Your task to perform on an android device: find photos in the google photos app Image 0: 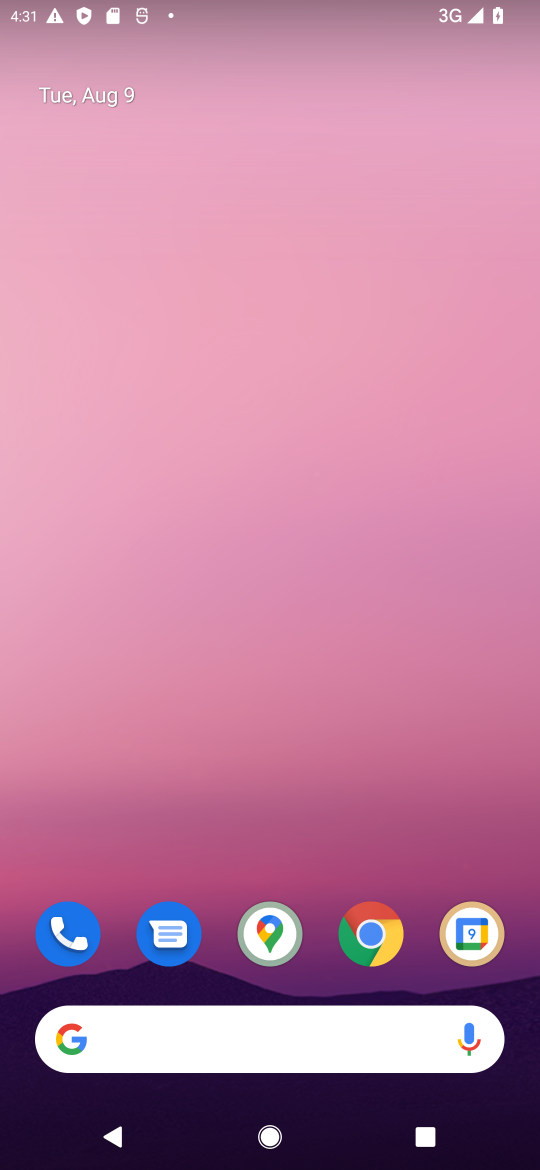
Step 0: drag from (308, 994) to (337, 339)
Your task to perform on an android device: find photos in the google photos app Image 1: 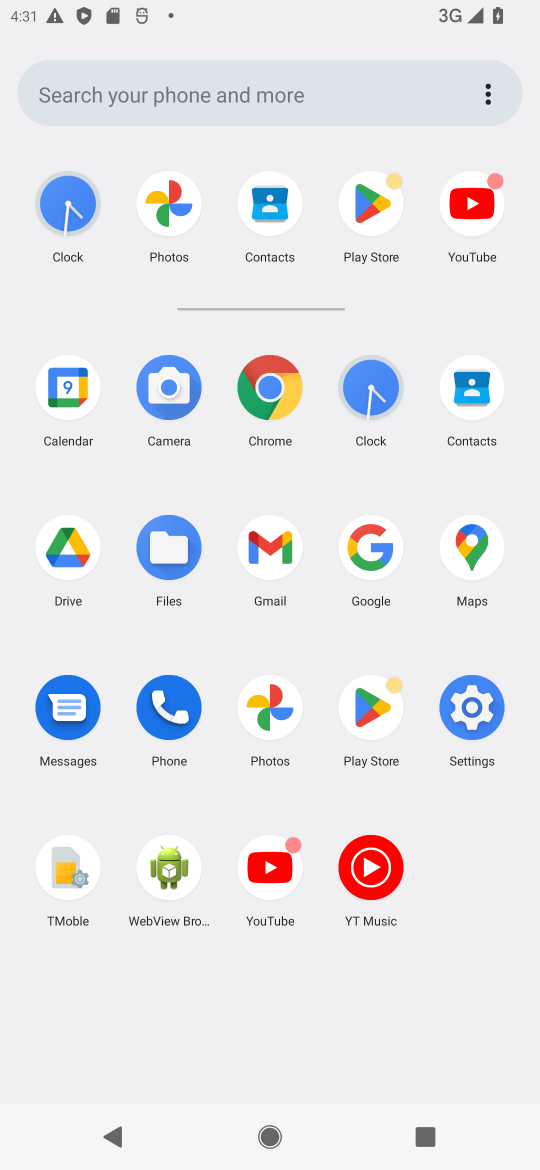
Step 1: click (154, 244)
Your task to perform on an android device: find photos in the google photos app Image 2: 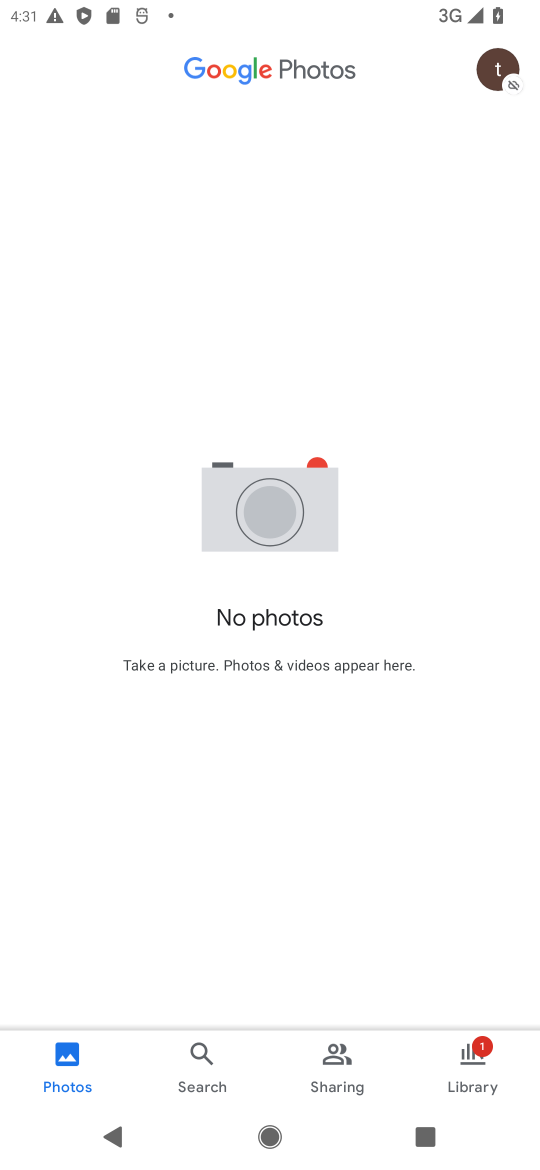
Step 2: task complete